Your task to perform on an android device: add a contact in the contacts app Image 0: 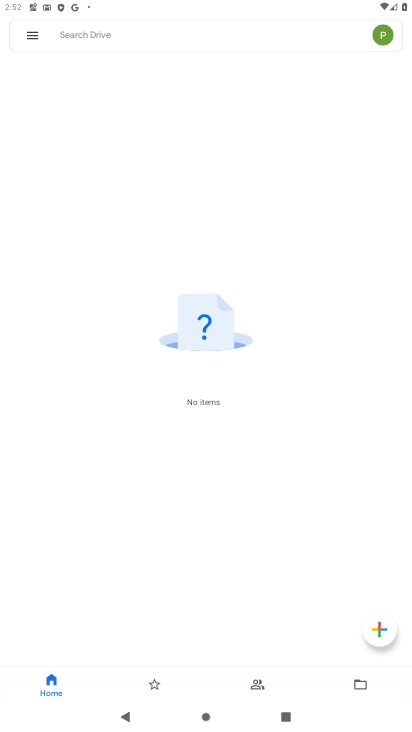
Step 0: task complete